Your task to perform on an android device: Open the Play Movies app and select the watchlist tab. Image 0: 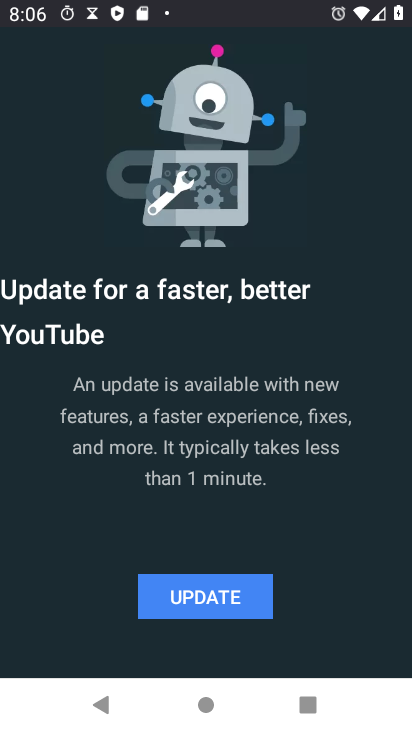
Step 0: press home button
Your task to perform on an android device: Open the Play Movies app and select the watchlist tab. Image 1: 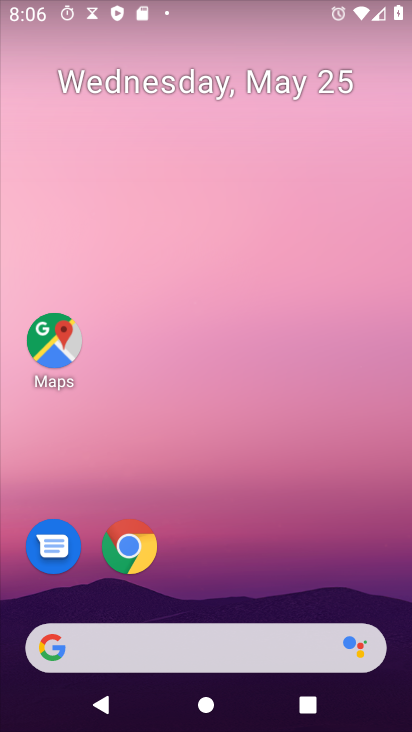
Step 1: drag from (148, 434) to (161, 181)
Your task to perform on an android device: Open the Play Movies app and select the watchlist tab. Image 2: 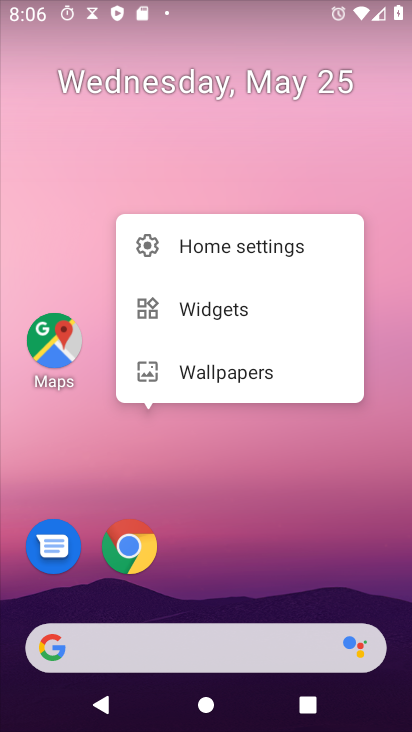
Step 2: click (203, 545)
Your task to perform on an android device: Open the Play Movies app and select the watchlist tab. Image 3: 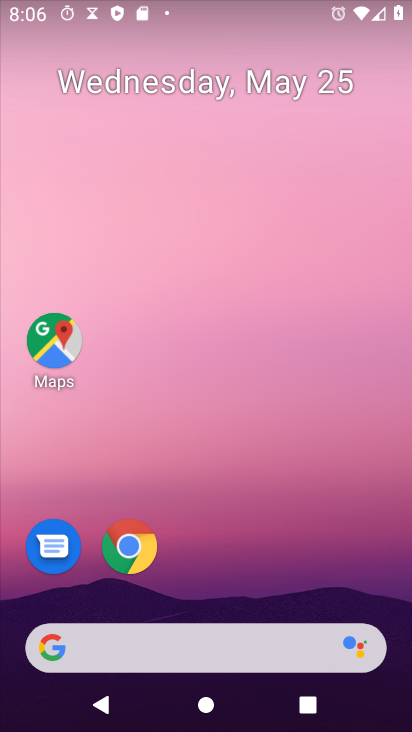
Step 3: drag from (197, 592) to (162, 61)
Your task to perform on an android device: Open the Play Movies app and select the watchlist tab. Image 4: 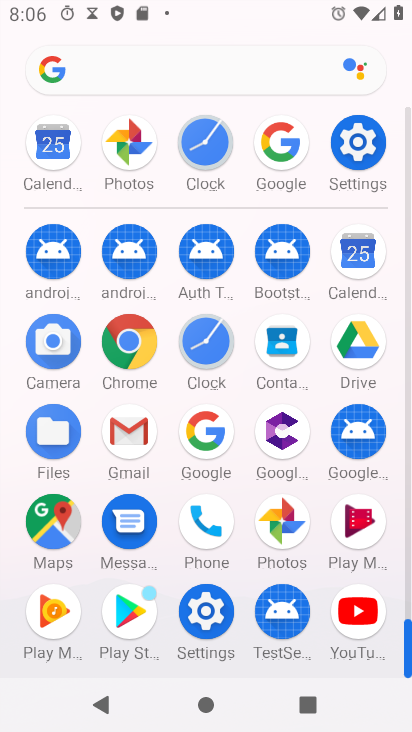
Step 4: click (361, 537)
Your task to perform on an android device: Open the Play Movies app and select the watchlist tab. Image 5: 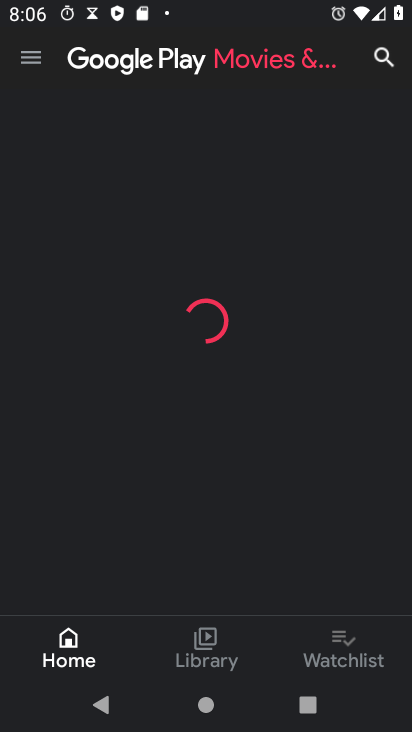
Step 5: click (338, 660)
Your task to perform on an android device: Open the Play Movies app and select the watchlist tab. Image 6: 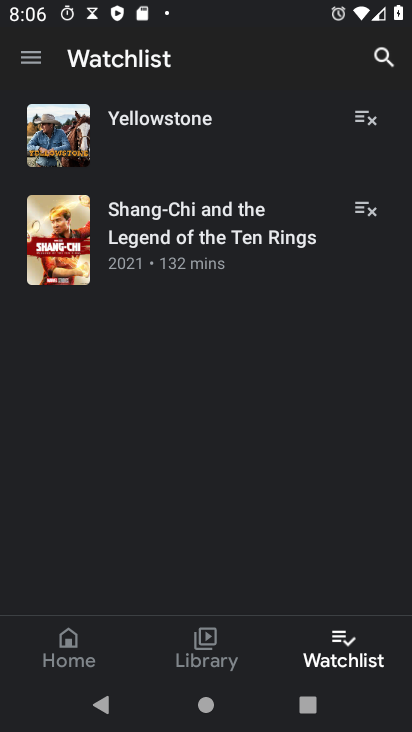
Step 6: task complete